Your task to perform on an android device: show emergency info Image 0: 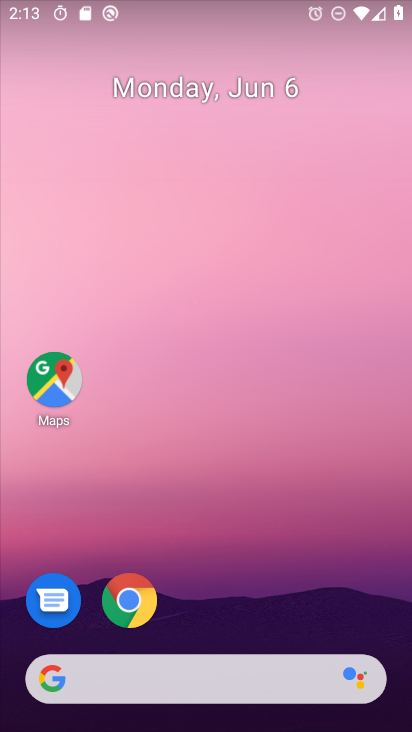
Step 0: drag from (192, 634) to (193, 191)
Your task to perform on an android device: show emergency info Image 1: 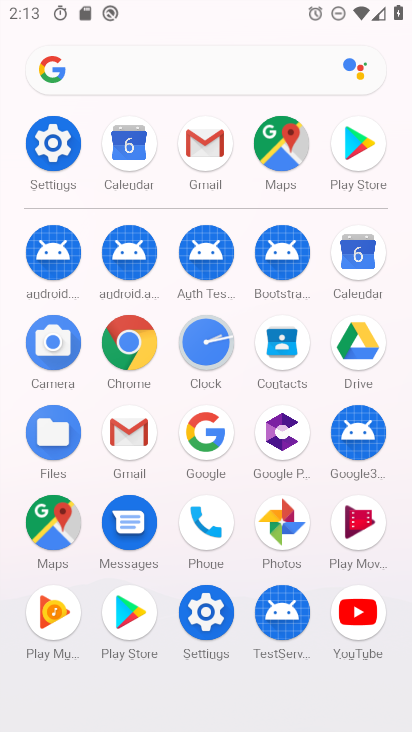
Step 1: click (46, 156)
Your task to perform on an android device: show emergency info Image 2: 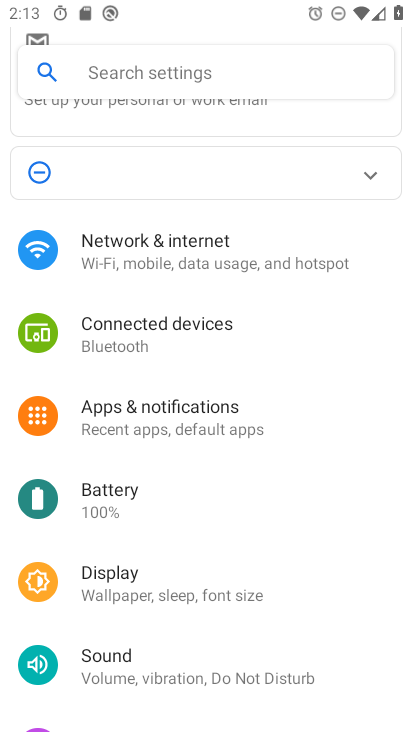
Step 2: click (214, 294)
Your task to perform on an android device: show emergency info Image 3: 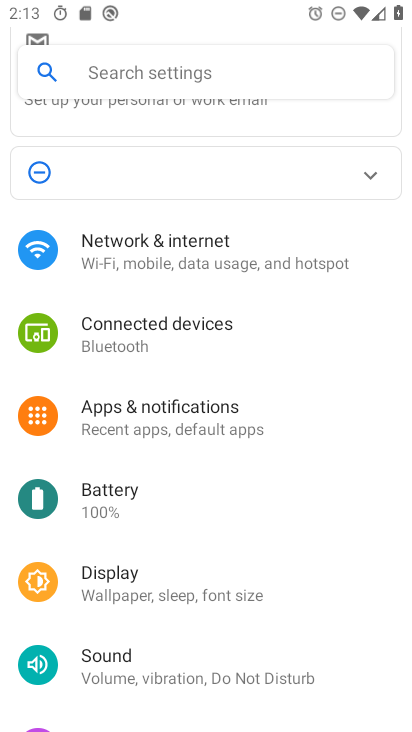
Step 3: drag from (199, 542) to (239, 248)
Your task to perform on an android device: show emergency info Image 4: 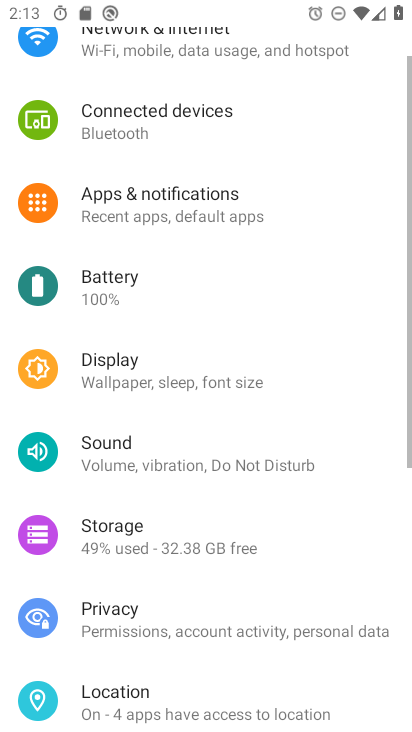
Step 4: drag from (210, 604) to (242, 267)
Your task to perform on an android device: show emergency info Image 5: 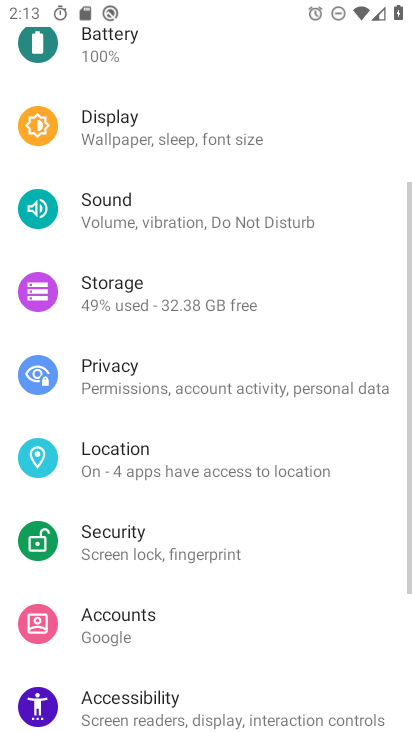
Step 5: drag from (219, 619) to (242, 304)
Your task to perform on an android device: show emergency info Image 6: 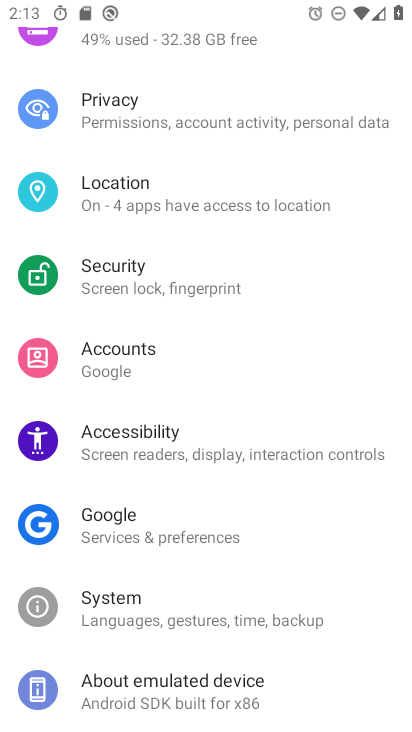
Step 6: click (231, 681)
Your task to perform on an android device: show emergency info Image 7: 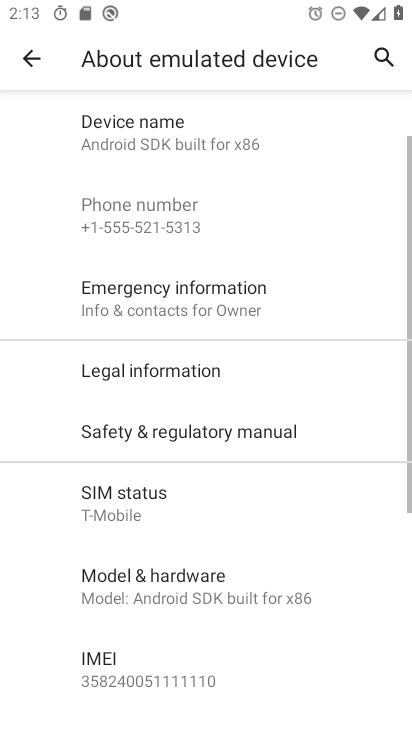
Step 7: drag from (221, 592) to (242, 246)
Your task to perform on an android device: show emergency info Image 8: 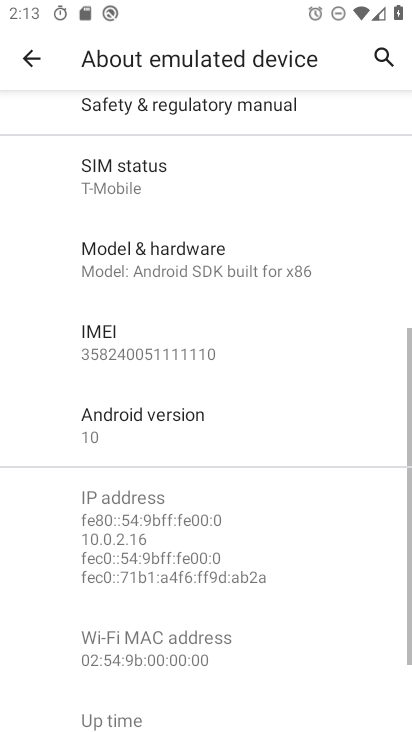
Step 8: drag from (215, 629) to (229, 325)
Your task to perform on an android device: show emergency info Image 9: 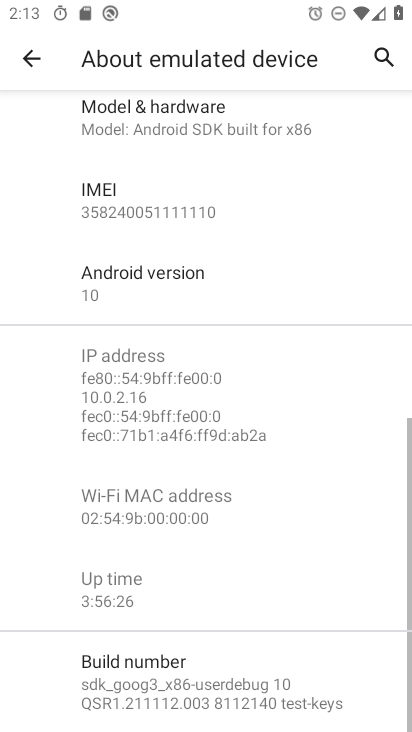
Step 9: drag from (208, 139) to (266, 536)
Your task to perform on an android device: show emergency info Image 10: 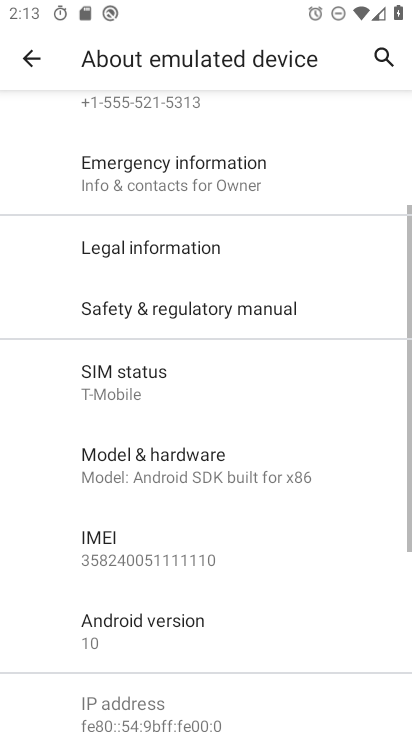
Step 10: click (249, 190)
Your task to perform on an android device: show emergency info Image 11: 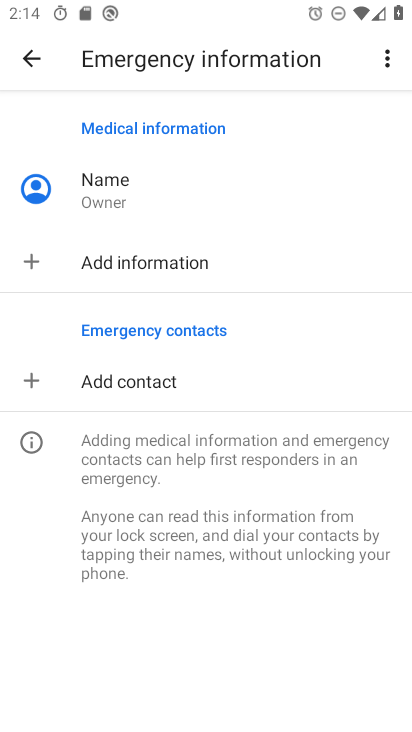
Step 11: task complete